Your task to perform on an android device: What's on my calendar today? Image 0: 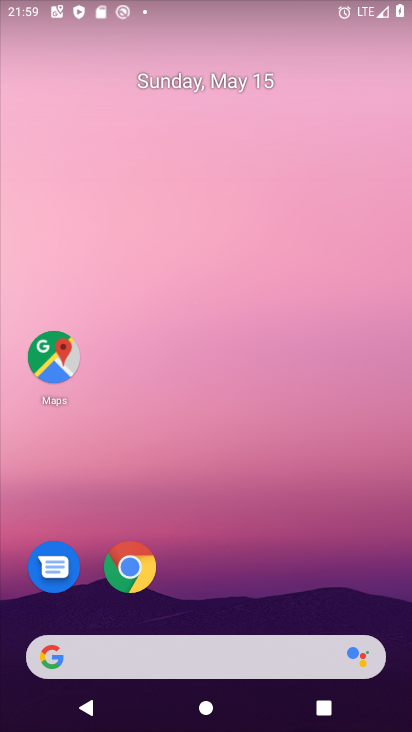
Step 0: drag from (272, 719) to (317, 109)
Your task to perform on an android device: What's on my calendar today? Image 1: 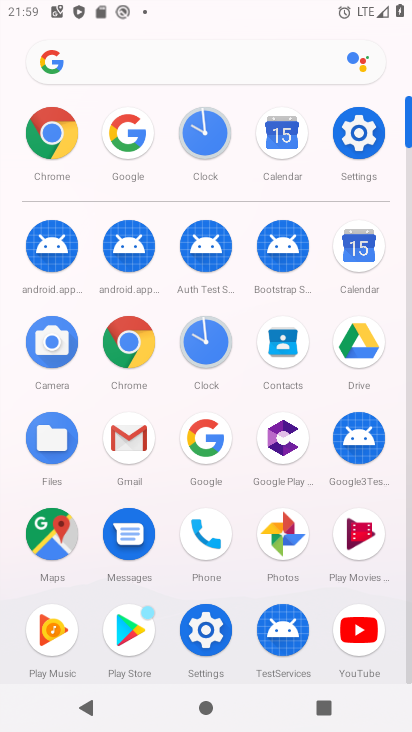
Step 1: click (368, 260)
Your task to perform on an android device: What's on my calendar today? Image 2: 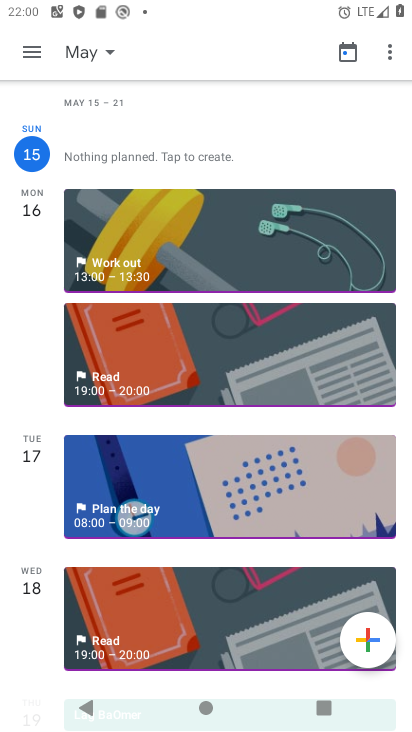
Step 2: click (37, 44)
Your task to perform on an android device: What's on my calendar today? Image 3: 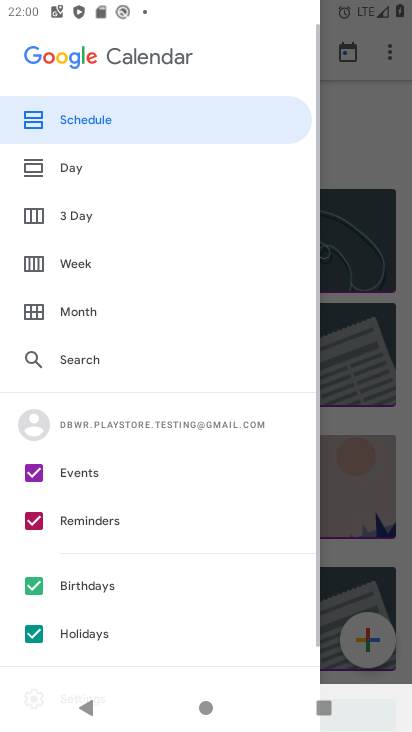
Step 3: click (393, 124)
Your task to perform on an android device: What's on my calendar today? Image 4: 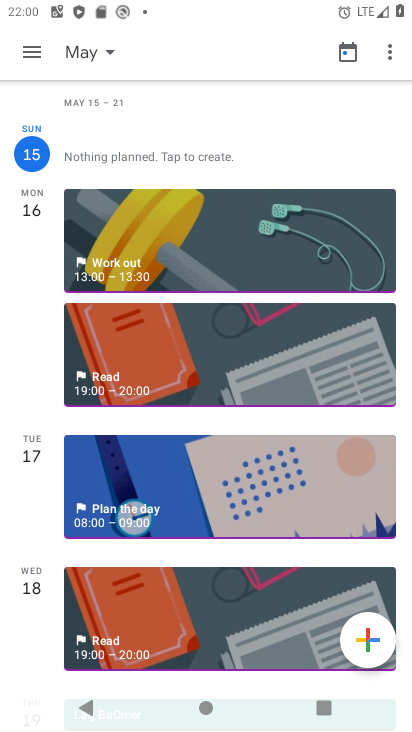
Step 4: click (72, 51)
Your task to perform on an android device: What's on my calendar today? Image 5: 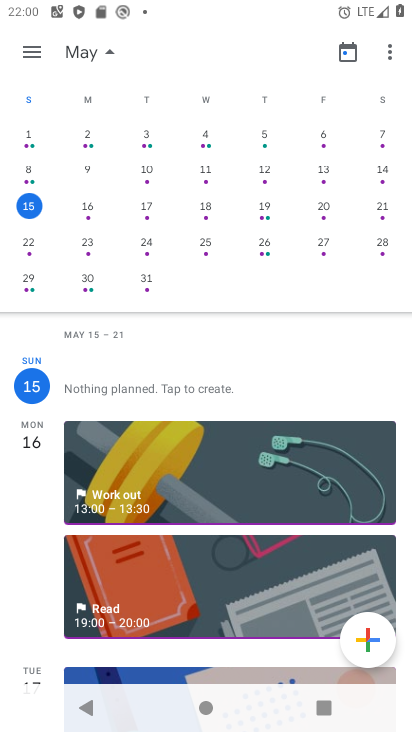
Step 5: task complete